Your task to perform on an android device: Open calendar and show me the fourth week of next month Image 0: 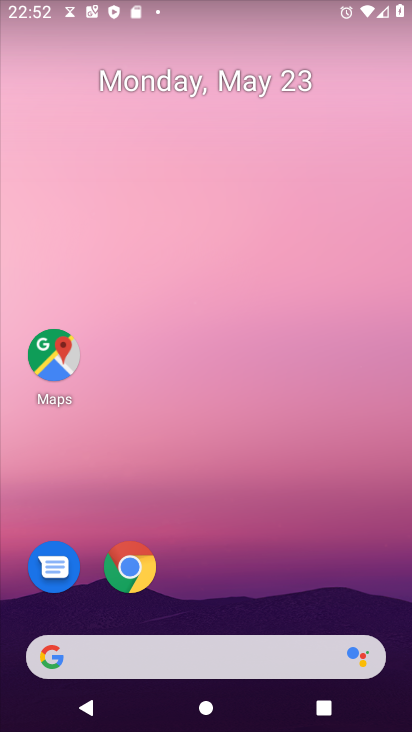
Step 0: drag from (257, 536) to (261, 290)
Your task to perform on an android device: Open calendar and show me the fourth week of next month Image 1: 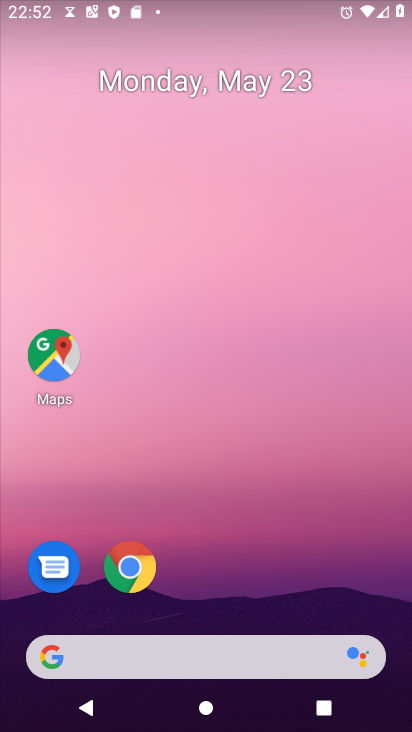
Step 1: drag from (225, 590) to (202, 260)
Your task to perform on an android device: Open calendar and show me the fourth week of next month Image 2: 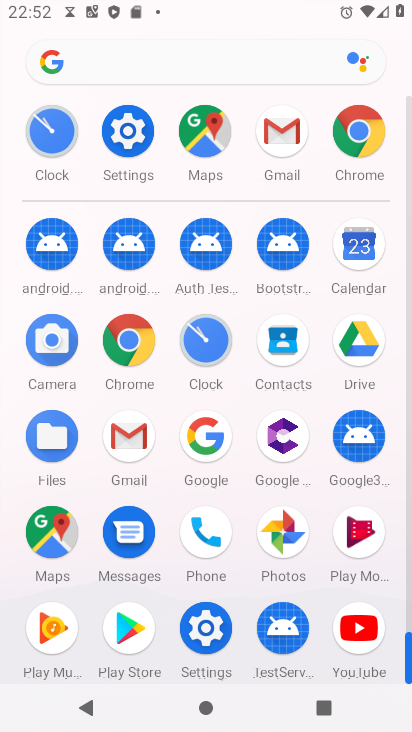
Step 2: click (350, 237)
Your task to perform on an android device: Open calendar and show me the fourth week of next month Image 3: 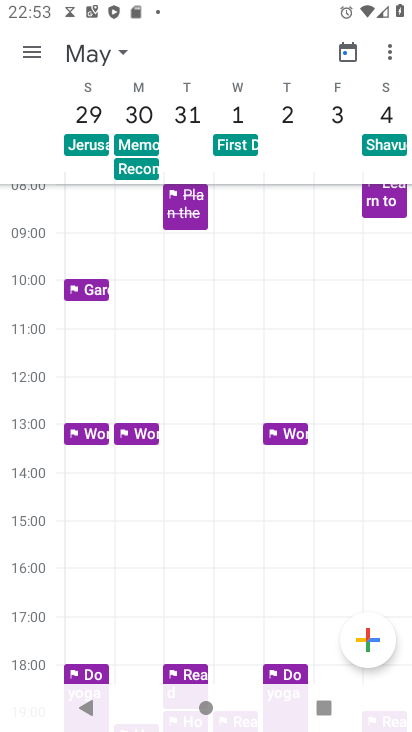
Step 3: click (36, 47)
Your task to perform on an android device: Open calendar and show me the fourth week of next month Image 4: 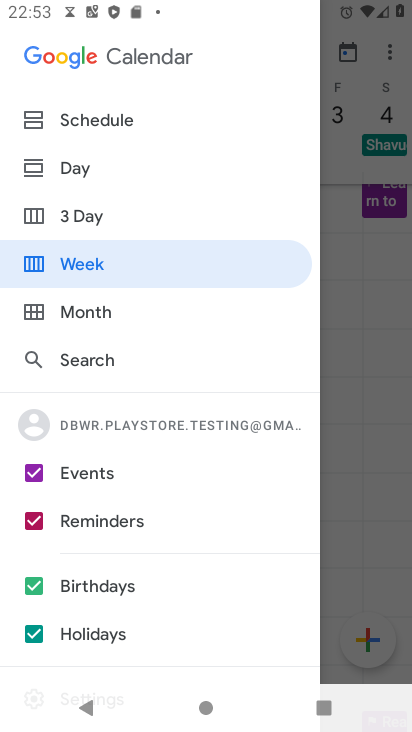
Step 4: click (87, 323)
Your task to perform on an android device: Open calendar and show me the fourth week of next month Image 5: 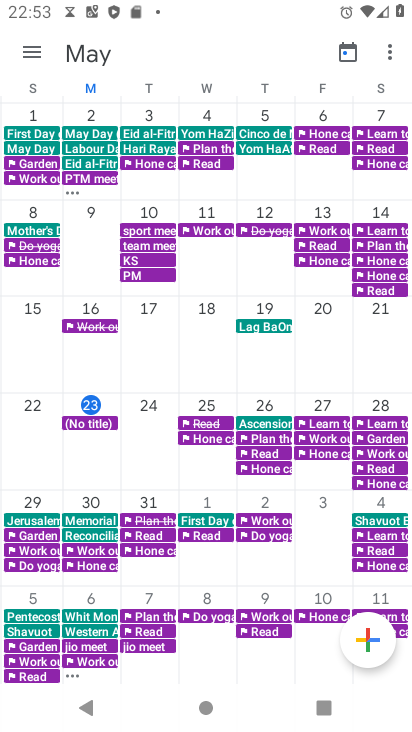
Step 5: task complete